Your task to perform on an android device: Open Google Chrome Image 0: 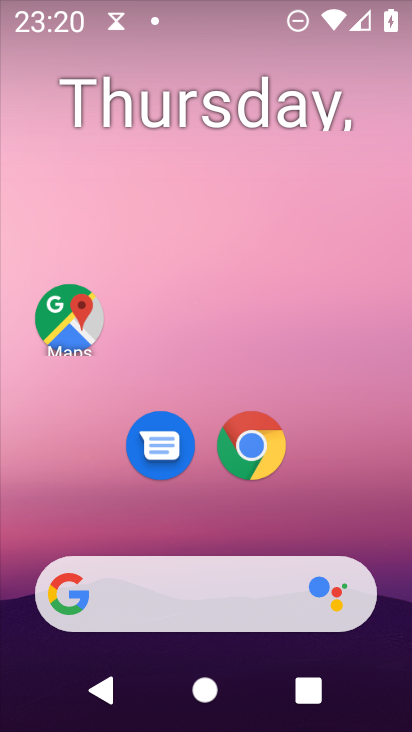
Step 0: click (253, 447)
Your task to perform on an android device: Open Google Chrome Image 1: 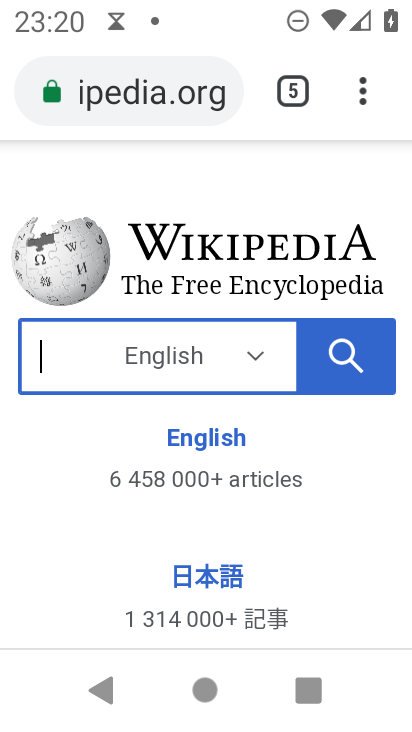
Step 1: task complete